Your task to perform on an android device: Open Reddit.com Image 0: 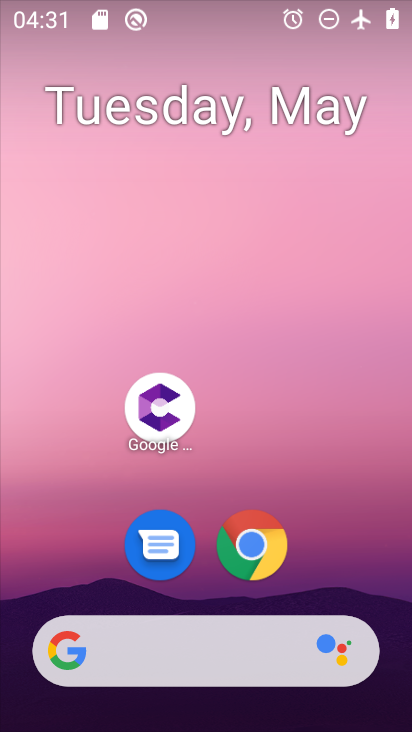
Step 0: drag from (366, 550) to (374, 181)
Your task to perform on an android device: Open Reddit.com Image 1: 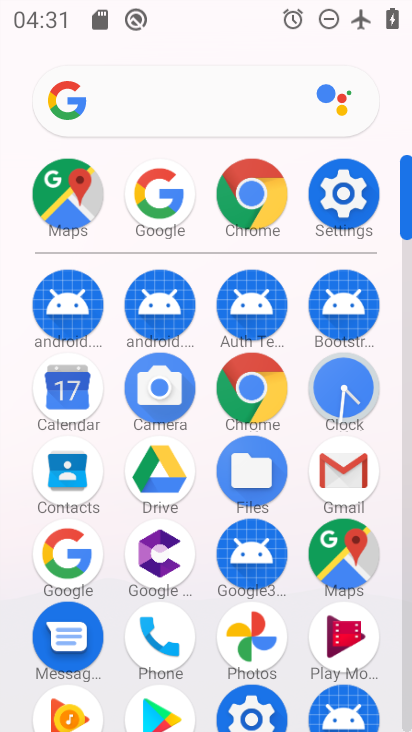
Step 1: click (263, 407)
Your task to perform on an android device: Open Reddit.com Image 2: 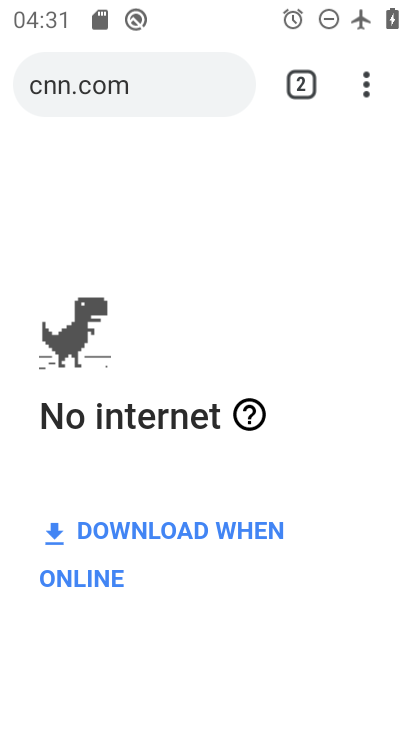
Step 2: click (180, 91)
Your task to perform on an android device: Open Reddit.com Image 3: 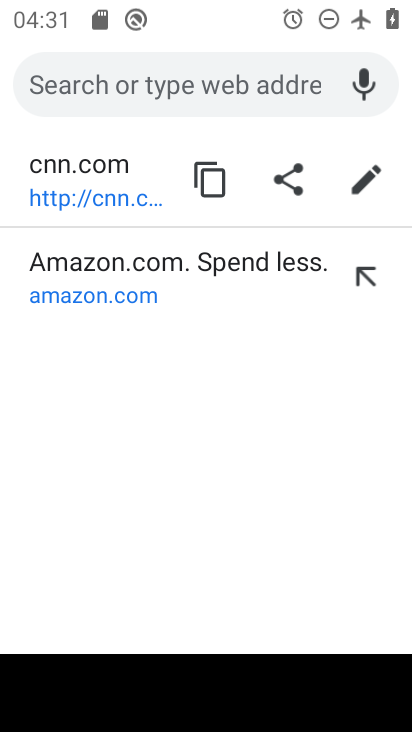
Step 3: type "reddit.com"
Your task to perform on an android device: Open Reddit.com Image 4: 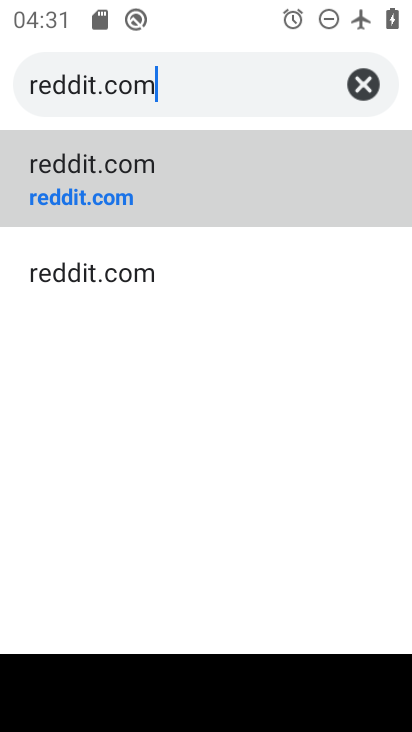
Step 4: click (242, 218)
Your task to perform on an android device: Open Reddit.com Image 5: 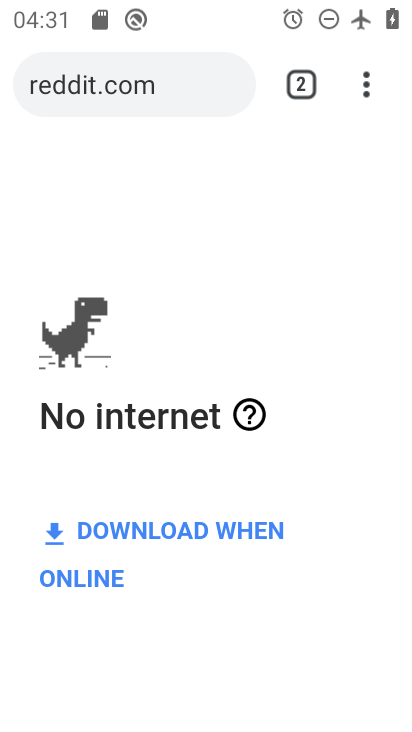
Step 5: task complete